Your task to perform on an android device: toggle pop-ups in chrome Image 0: 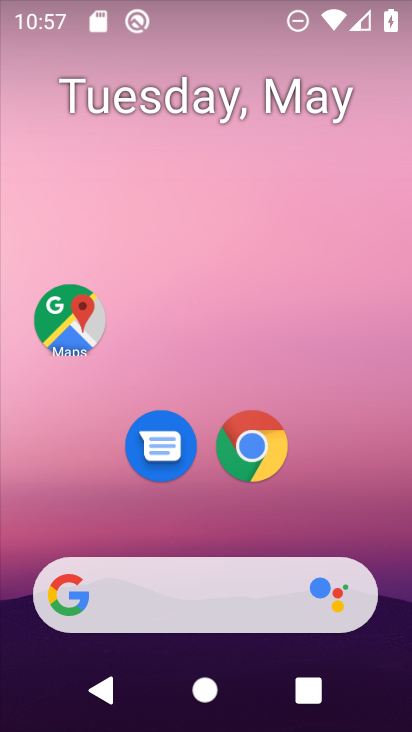
Step 0: click (262, 446)
Your task to perform on an android device: toggle pop-ups in chrome Image 1: 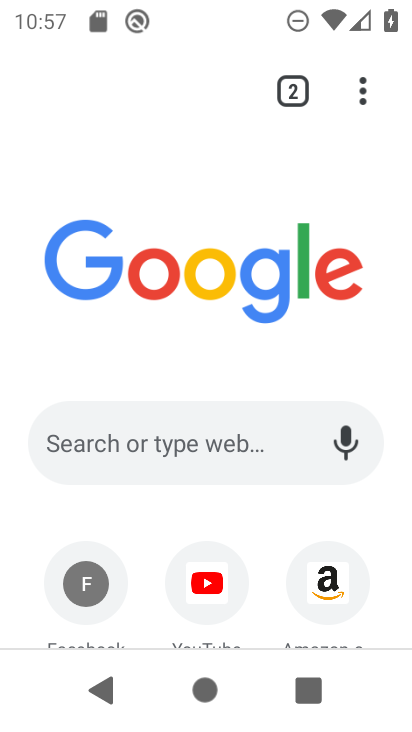
Step 1: click (357, 86)
Your task to perform on an android device: toggle pop-ups in chrome Image 2: 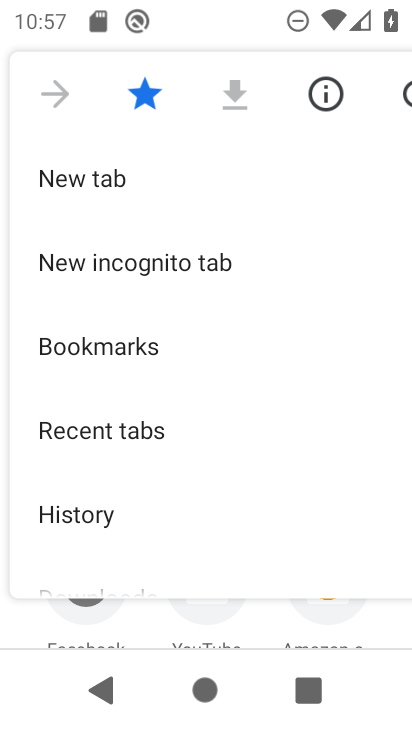
Step 2: drag from (169, 463) to (192, 302)
Your task to perform on an android device: toggle pop-ups in chrome Image 3: 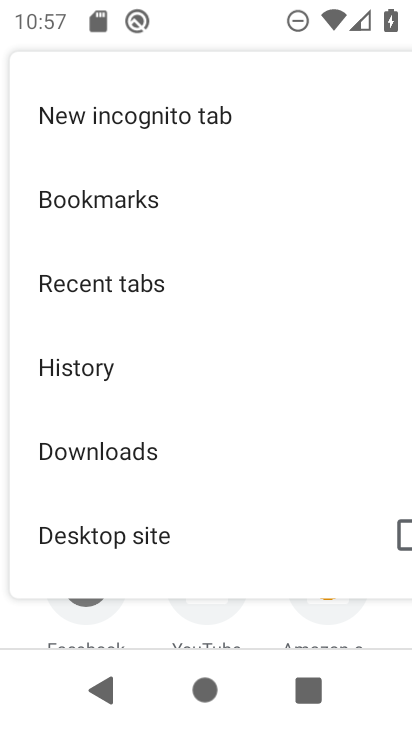
Step 3: drag from (145, 484) to (175, 232)
Your task to perform on an android device: toggle pop-ups in chrome Image 4: 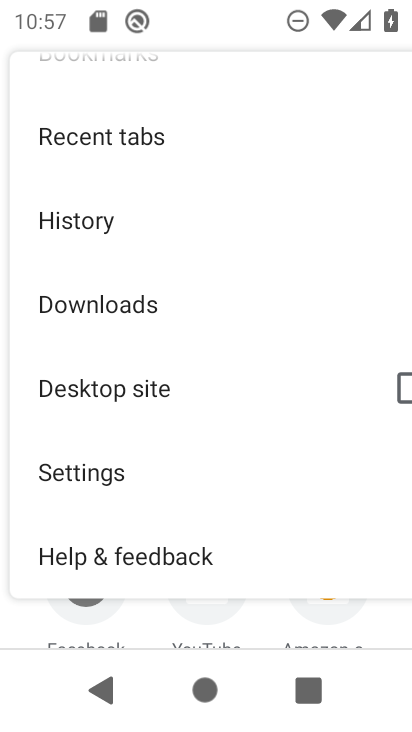
Step 4: click (103, 476)
Your task to perform on an android device: toggle pop-ups in chrome Image 5: 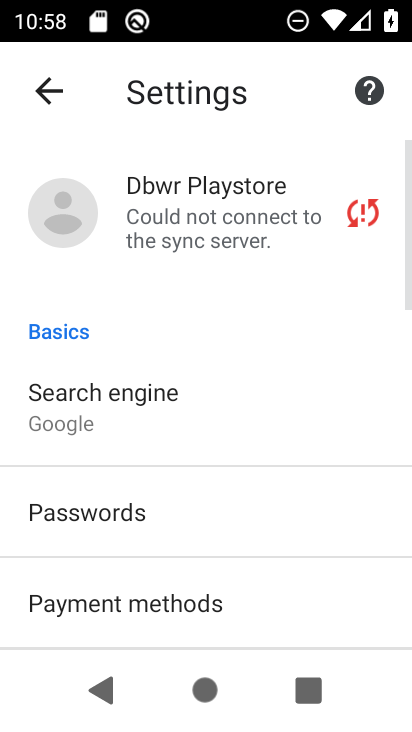
Step 5: drag from (148, 502) to (194, 282)
Your task to perform on an android device: toggle pop-ups in chrome Image 6: 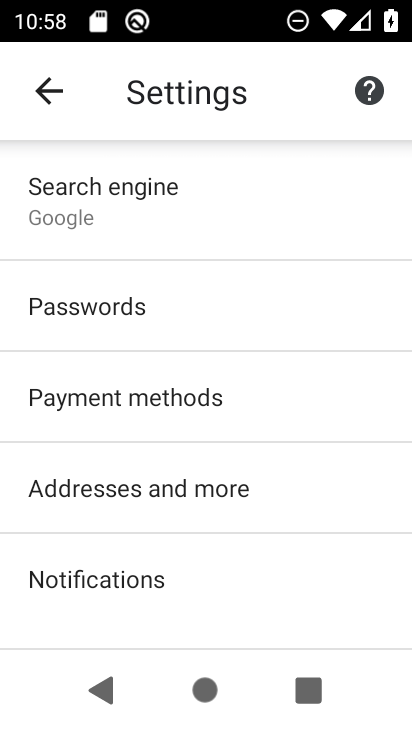
Step 6: drag from (163, 498) to (182, 327)
Your task to perform on an android device: toggle pop-ups in chrome Image 7: 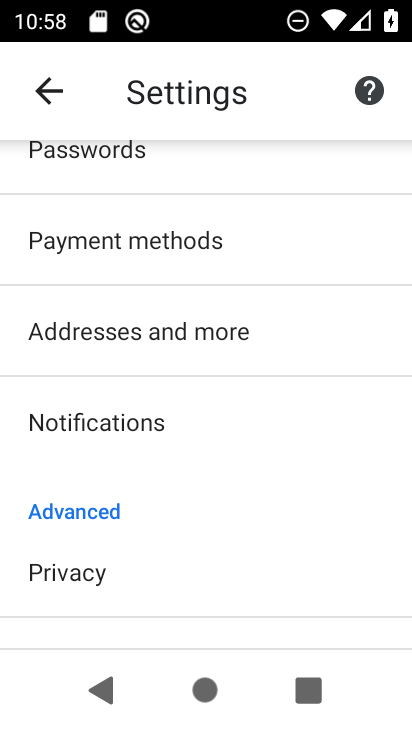
Step 7: drag from (168, 579) to (174, 325)
Your task to perform on an android device: toggle pop-ups in chrome Image 8: 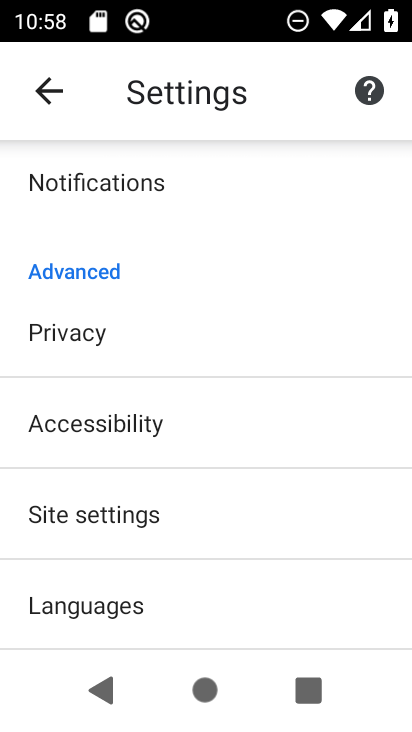
Step 8: click (116, 528)
Your task to perform on an android device: toggle pop-ups in chrome Image 9: 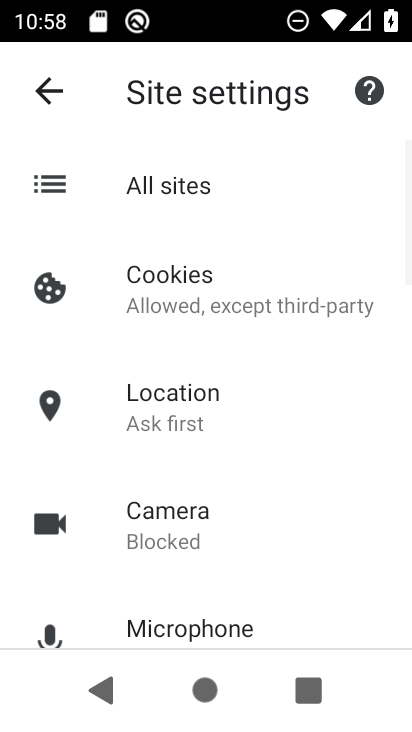
Step 9: drag from (231, 592) to (260, 246)
Your task to perform on an android device: toggle pop-ups in chrome Image 10: 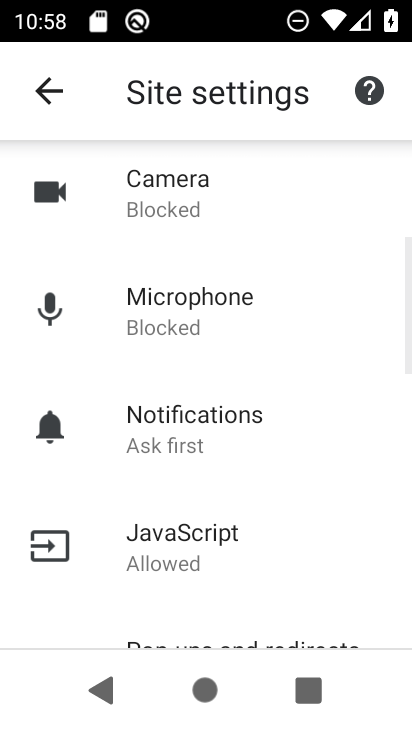
Step 10: drag from (187, 562) to (237, 196)
Your task to perform on an android device: toggle pop-ups in chrome Image 11: 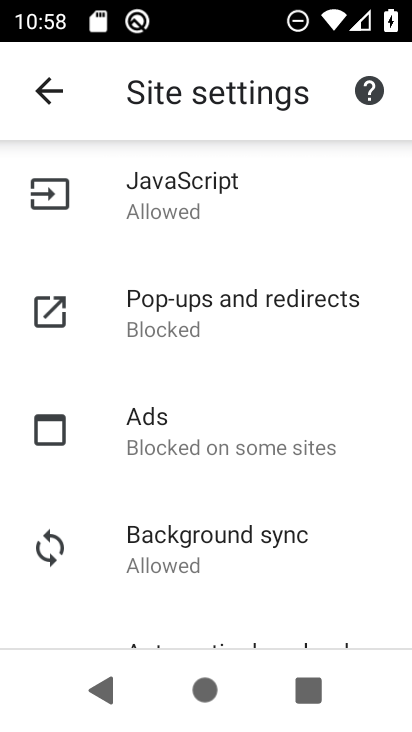
Step 11: click (205, 319)
Your task to perform on an android device: toggle pop-ups in chrome Image 12: 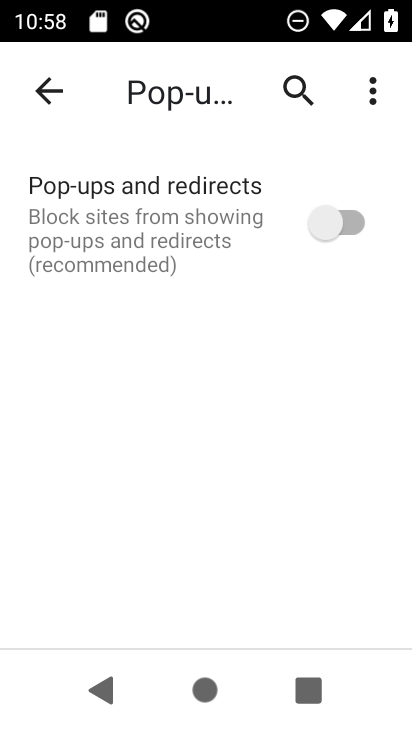
Step 12: click (365, 215)
Your task to perform on an android device: toggle pop-ups in chrome Image 13: 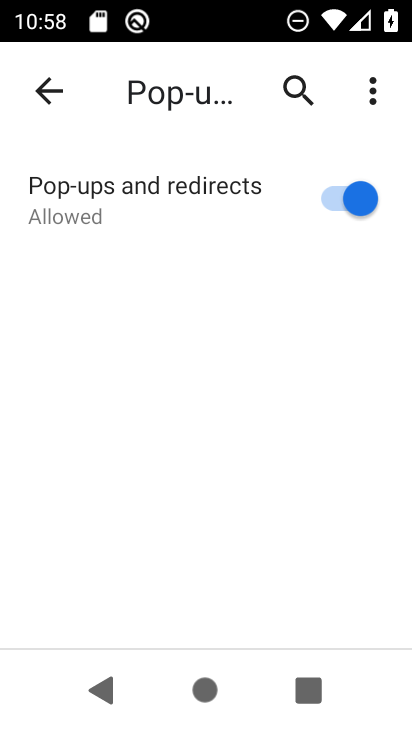
Step 13: task complete